Your task to perform on an android device: Open Google Chrome and open the bookmarks view Image 0: 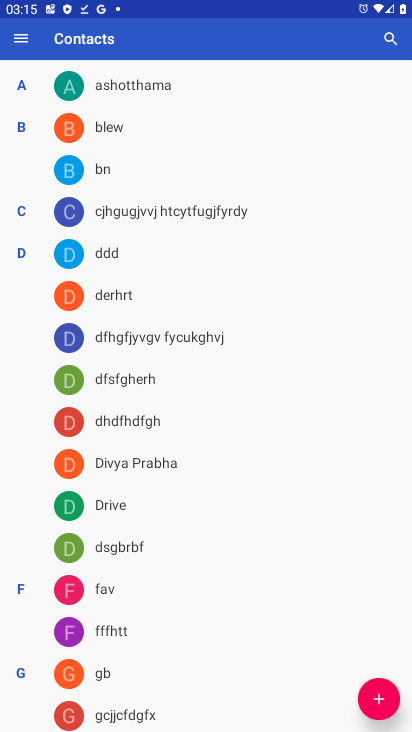
Step 0: press home button
Your task to perform on an android device: Open Google Chrome and open the bookmarks view Image 1: 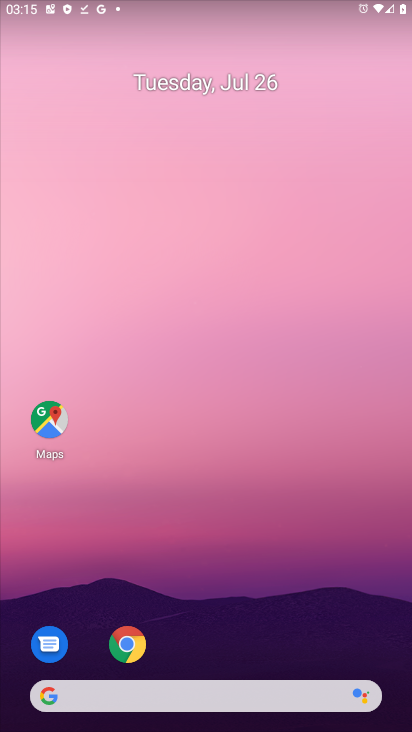
Step 1: click (119, 651)
Your task to perform on an android device: Open Google Chrome and open the bookmarks view Image 2: 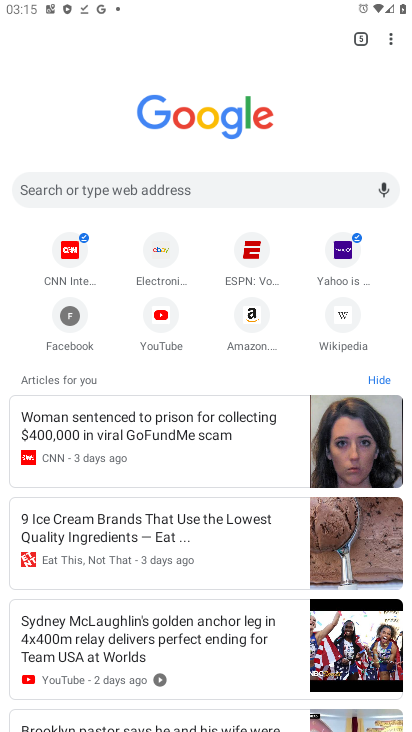
Step 2: click (392, 42)
Your task to perform on an android device: Open Google Chrome and open the bookmarks view Image 3: 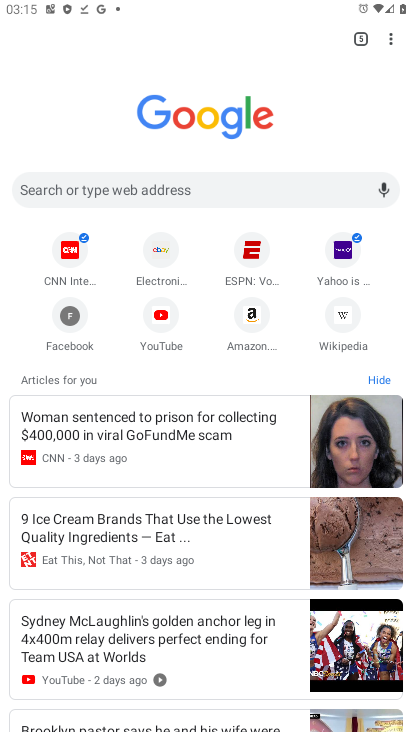
Step 3: task complete